Your task to perform on an android device: turn off picture-in-picture Image 0: 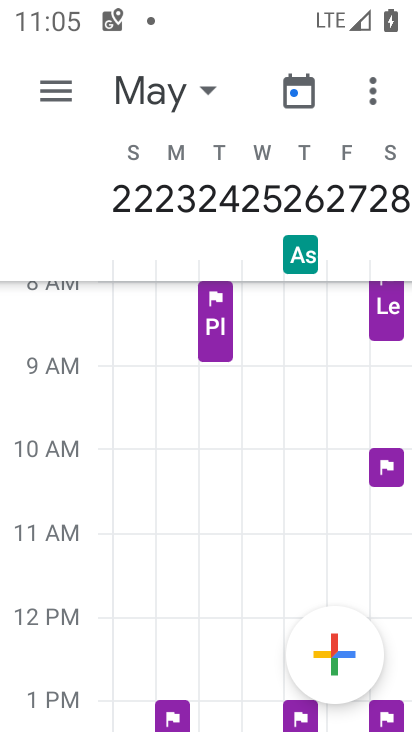
Step 0: press home button
Your task to perform on an android device: turn off picture-in-picture Image 1: 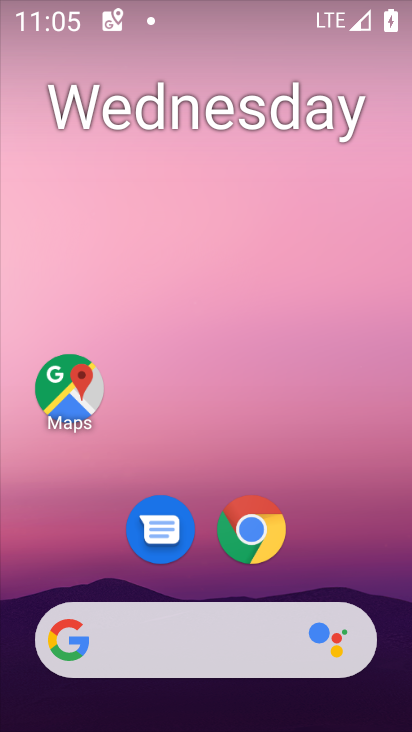
Step 1: drag from (388, 626) to (334, 63)
Your task to perform on an android device: turn off picture-in-picture Image 2: 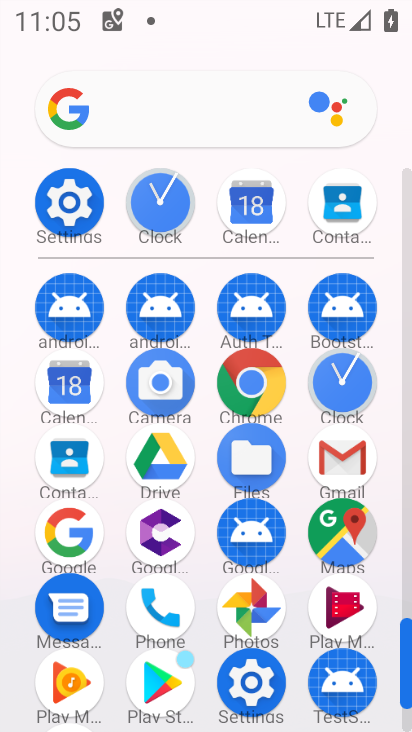
Step 2: click (255, 676)
Your task to perform on an android device: turn off picture-in-picture Image 3: 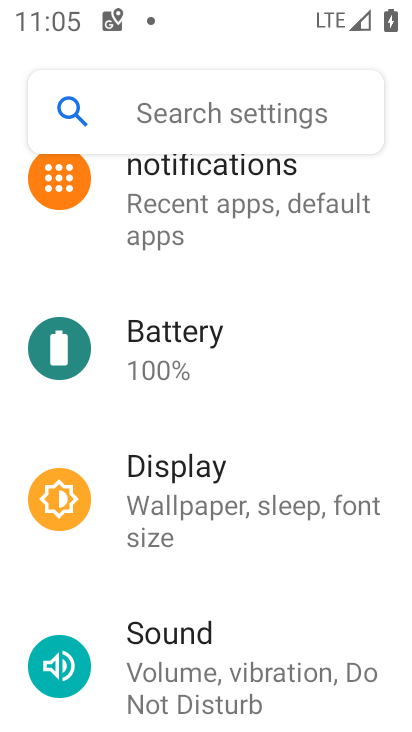
Step 3: click (201, 196)
Your task to perform on an android device: turn off picture-in-picture Image 4: 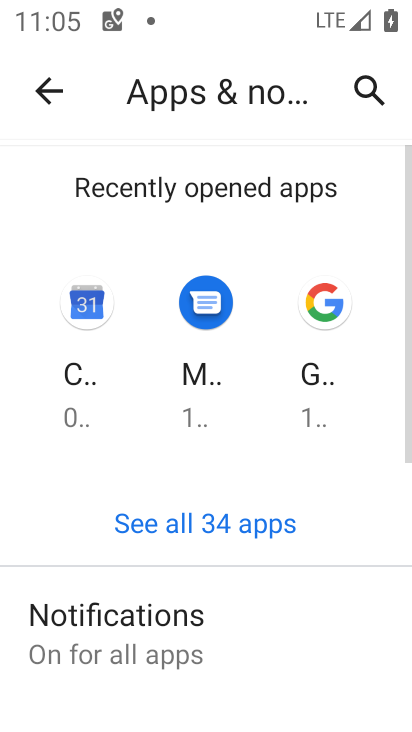
Step 4: click (178, 638)
Your task to perform on an android device: turn off picture-in-picture Image 5: 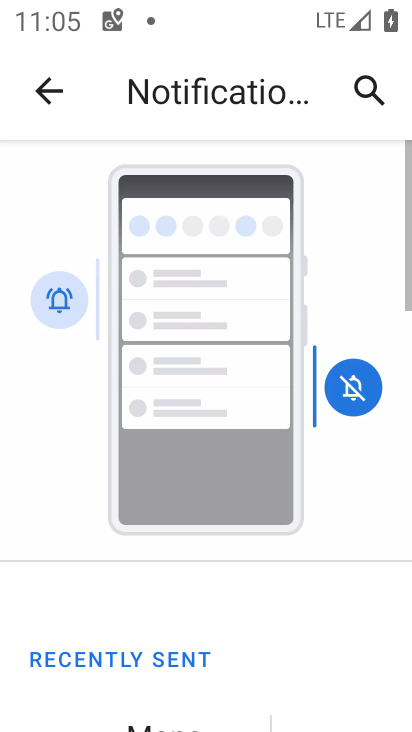
Step 5: drag from (334, 662) to (326, 236)
Your task to perform on an android device: turn off picture-in-picture Image 6: 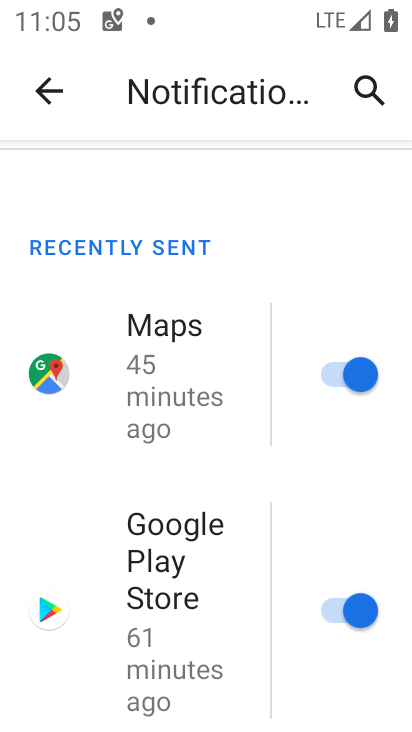
Step 6: drag from (274, 718) to (254, 184)
Your task to perform on an android device: turn off picture-in-picture Image 7: 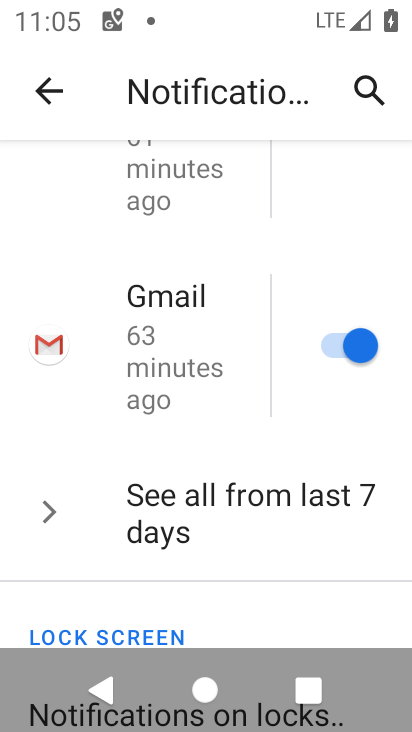
Step 7: drag from (277, 596) to (255, 140)
Your task to perform on an android device: turn off picture-in-picture Image 8: 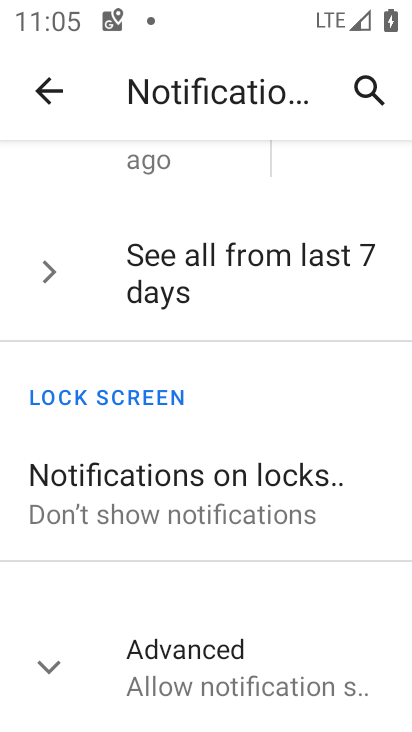
Step 8: click (65, 661)
Your task to perform on an android device: turn off picture-in-picture Image 9: 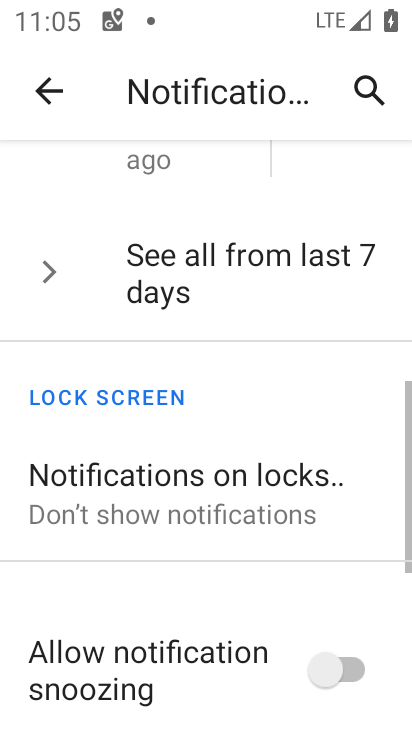
Step 9: drag from (330, 683) to (286, 219)
Your task to perform on an android device: turn off picture-in-picture Image 10: 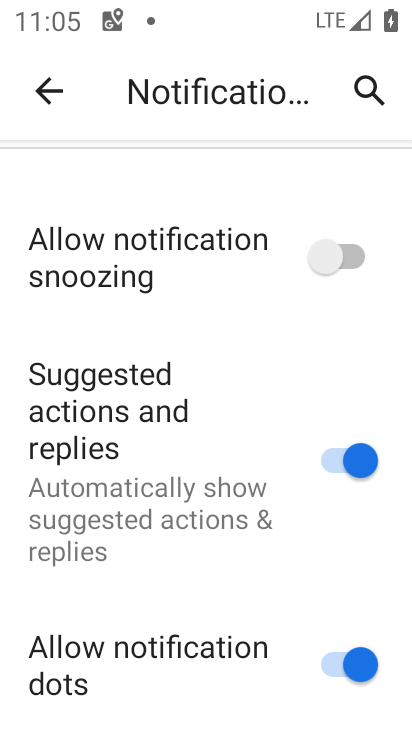
Step 10: drag from (273, 649) to (235, 329)
Your task to perform on an android device: turn off picture-in-picture Image 11: 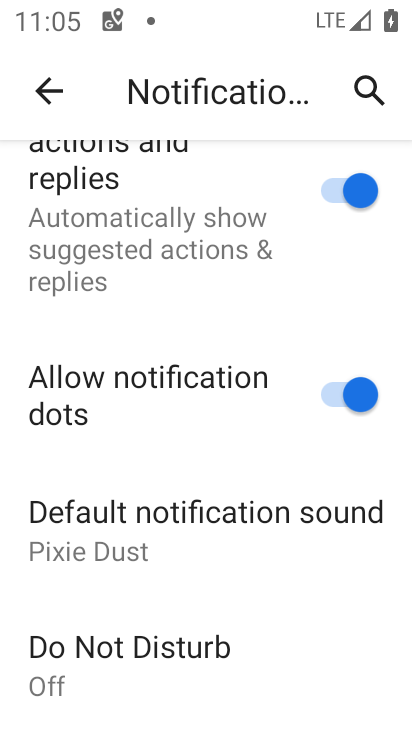
Step 11: press back button
Your task to perform on an android device: turn off picture-in-picture Image 12: 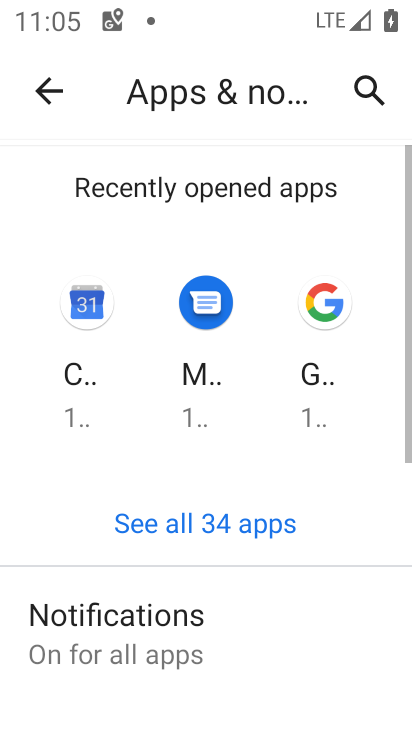
Step 12: drag from (189, 648) to (198, 133)
Your task to perform on an android device: turn off picture-in-picture Image 13: 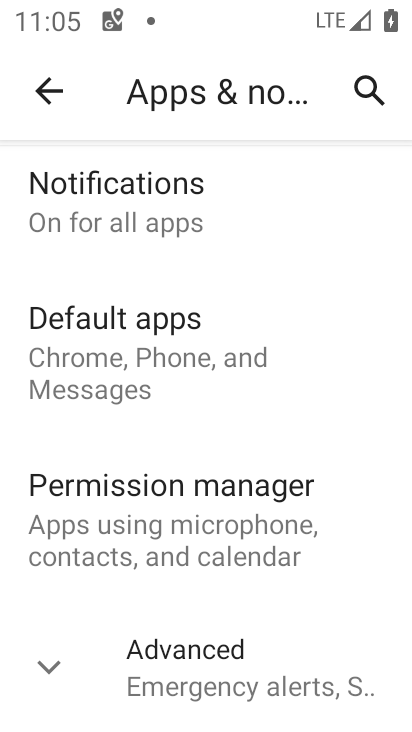
Step 13: click (40, 675)
Your task to perform on an android device: turn off picture-in-picture Image 14: 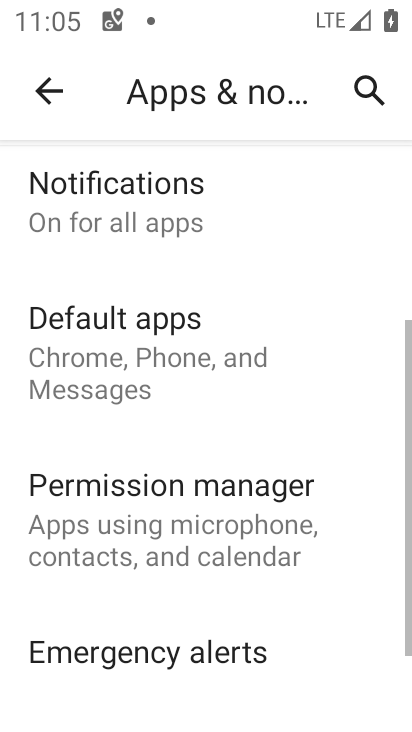
Step 14: drag from (350, 630) to (295, 231)
Your task to perform on an android device: turn off picture-in-picture Image 15: 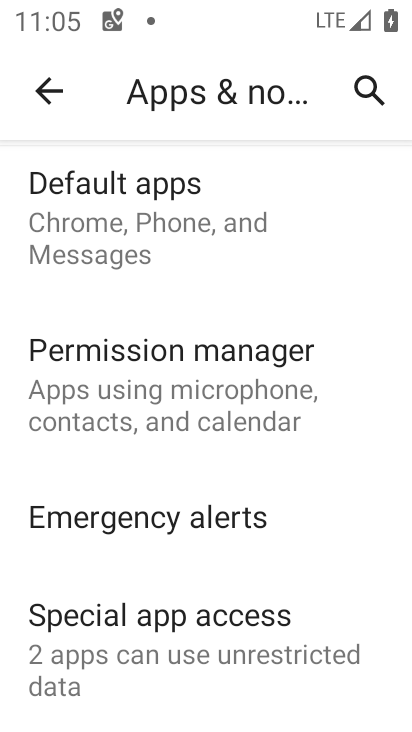
Step 15: click (184, 656)
Your task to perform on an android device: turn off picture-in-picture Image 16: 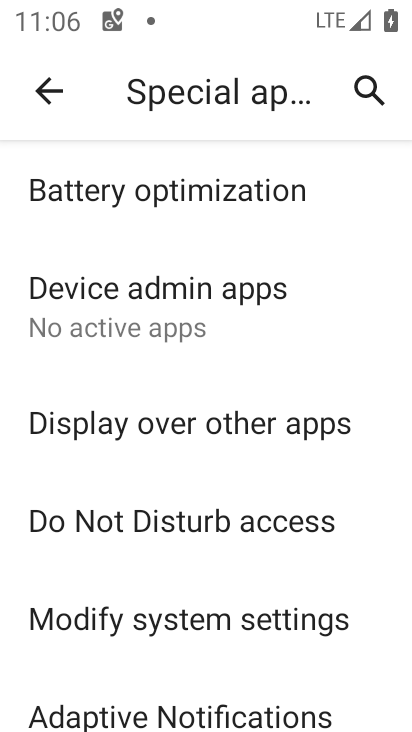
Step 16: drag from (358, 691) to (259, 167)
Your task to perform on an android device: turn off picture-in-picture Image 17: 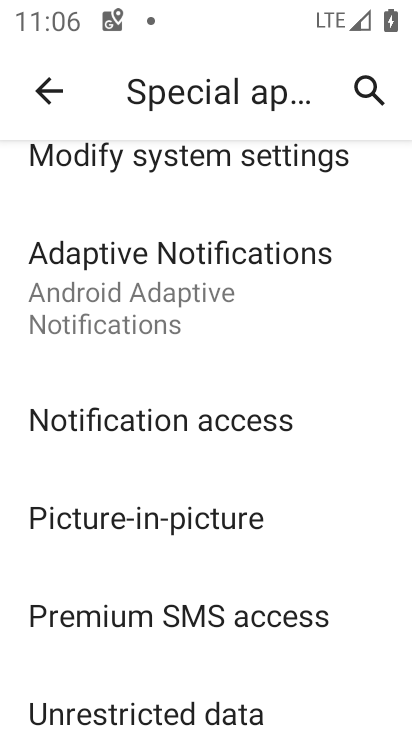
Step 17: click (110, 511)
Your task to perform on an android device: turn off picture-in-picture Image 18: 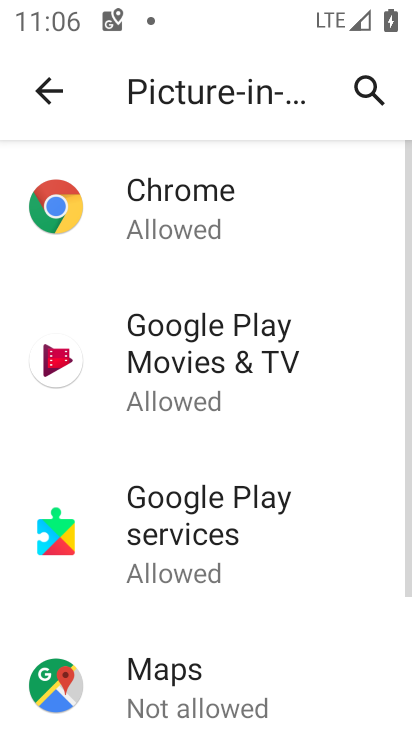
Step 18: drag from (311, 607) to (277, 125)
Your task to perform on an android device: turn off picture-in-picture Image 19: 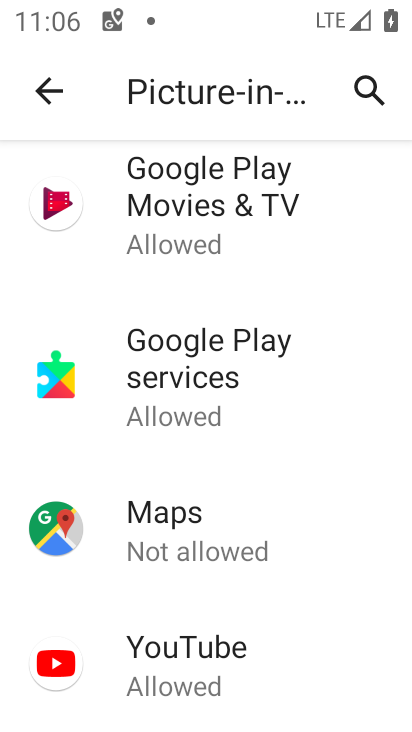
Step 19: click (150, 660)
Your task to perform on an android device: turn off picture-in-picture Image 20: 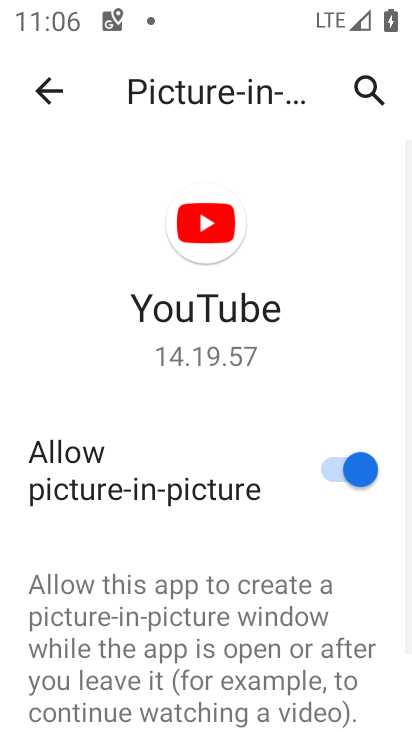
Step 20: click (328, 455)
Your task to perform on an android device: turn off picture-in-picture Image 21: 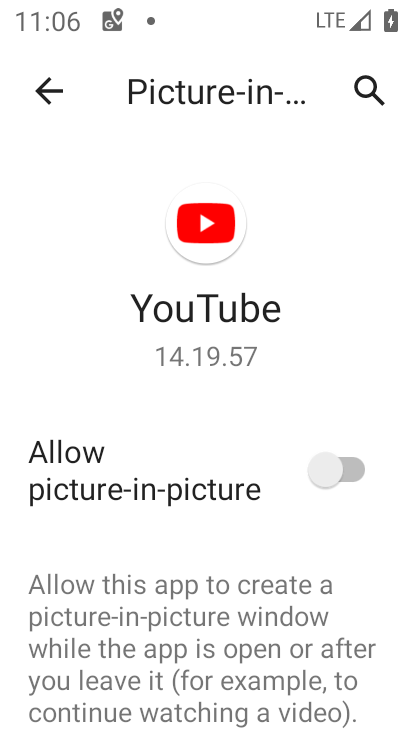
Step 21: task complete